Your task to perform on an android device: Go to privacy settings Image 0: 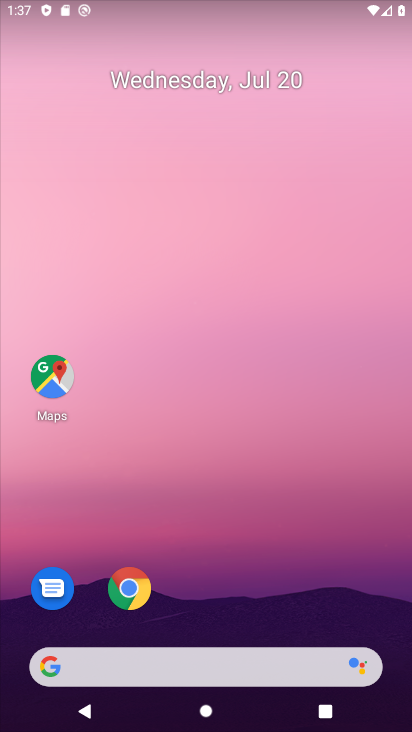
Step 0: drag from (296, 693) to (214, 29)
Your task to perform on an android device: Go to privacy settings Image 1: 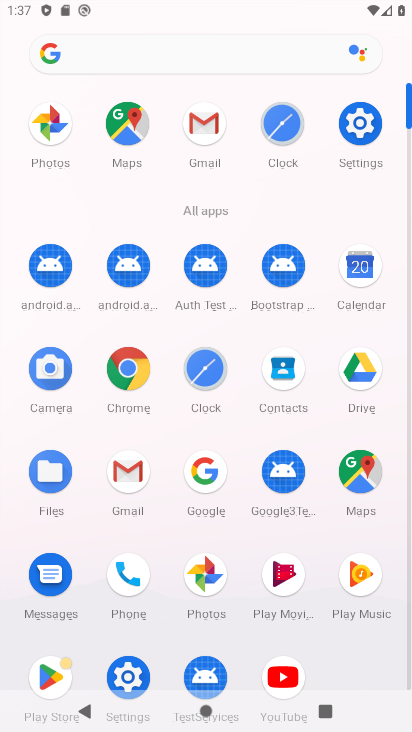
Step 1: click (335, 131)
Your task to perform on an android device: Go to privacy settings Image 2: 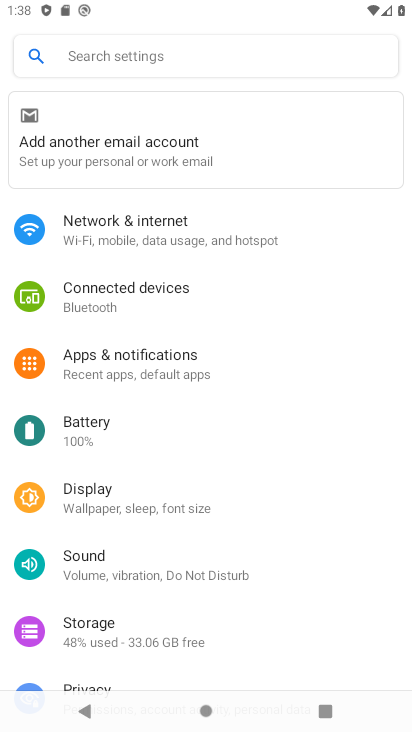
Step 2: drag from (190, 576) to (220, 267)
Your task to perform on an android device: Go to privacy settings Image 3: 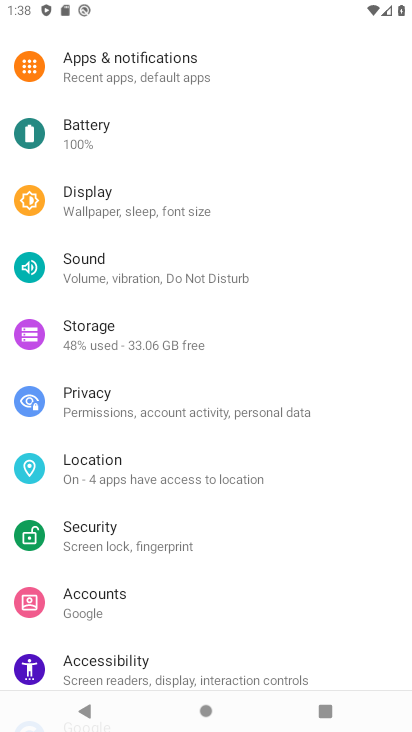
Step 3: drag from (131, 204) to (229, 660)
Your task to perform on an android device: Go to privacy settings Image 4: 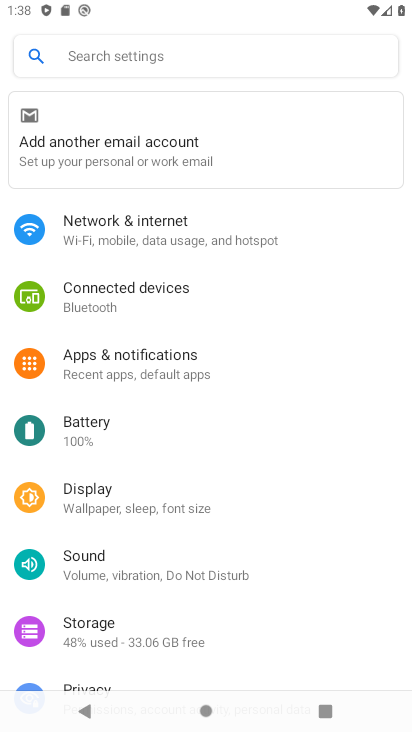
Step 4: drag from (219, 554) to (184, 246)
Your task to perform on an android device: Go to privacy settings Image 5: 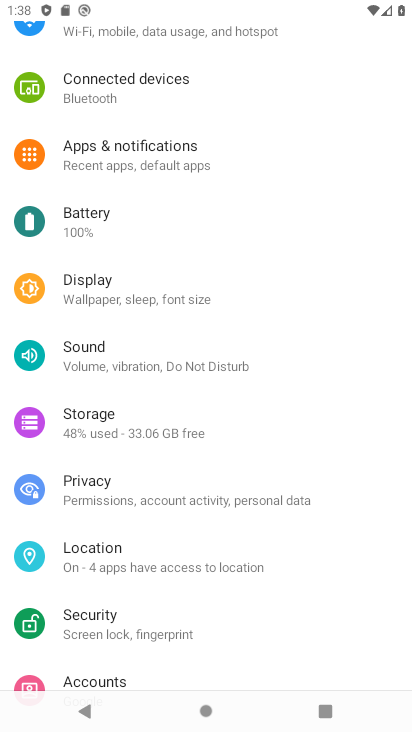
Step 5: drag from (154, 601) to (209, 250)
Your task to perform on an android device: Go to privacy settings Image 6: 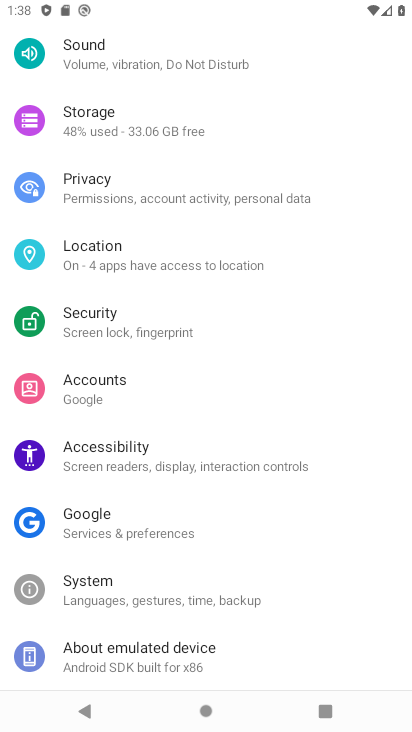
Step 6: click (85, 179)
Your task to perform on an android device: Go to privacy settings Image 7: 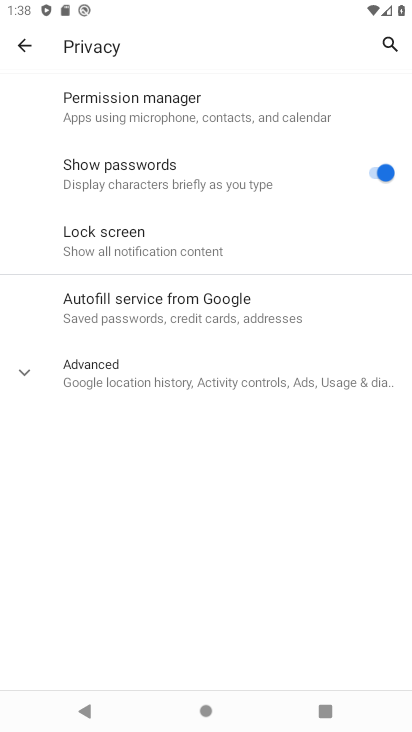
Step 7: task complete